Your task to perform on an android device: Open the calendar and show me this week's events Image 0: 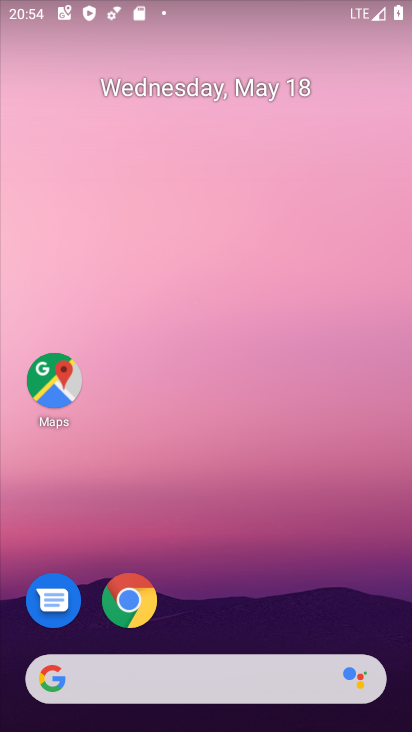
Step 0: drag from (286, 537) to (339, 19)
Your task to perform on an android device: Open the calendar and show me this week's events Image 1: 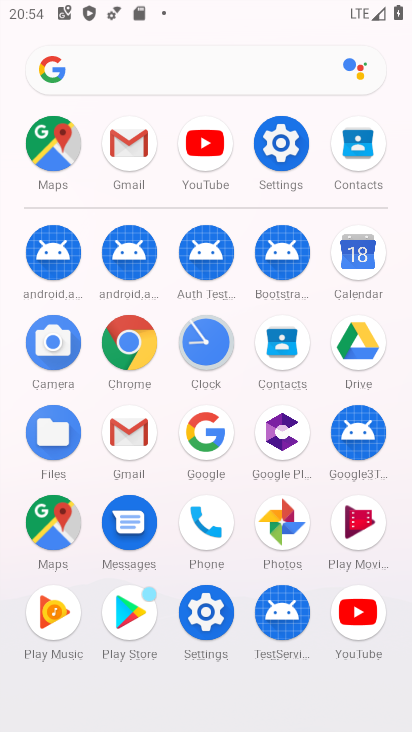
Step 1: click (343, 267)
Your task to perform on an android device: Open the calendar and show me this week's events Image 2: 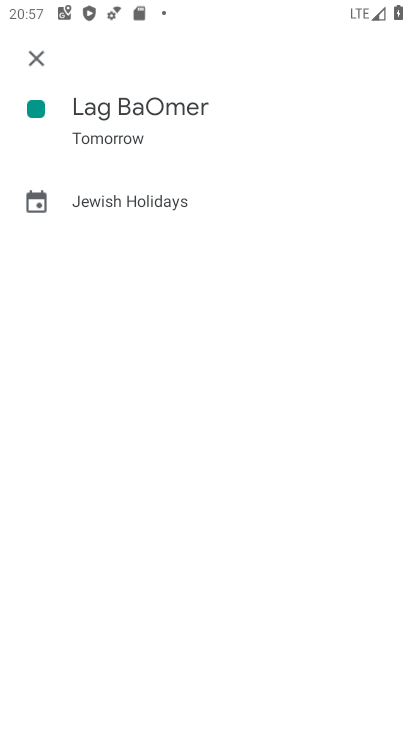
Step 2: click (36, 45)
Your task to perform on an android device: Open the calendar and show me this week's events Image 3: 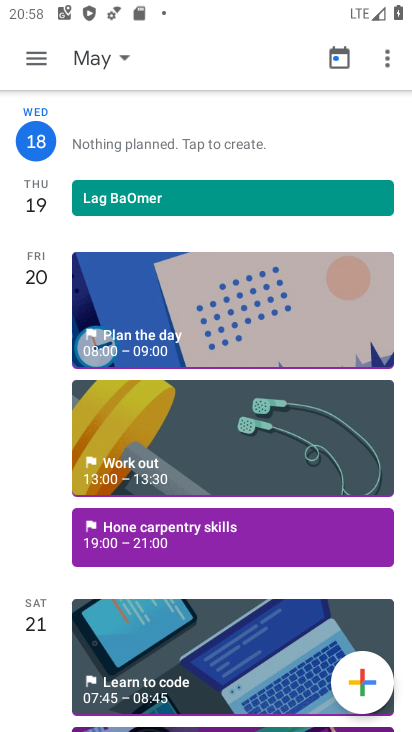
Step 3: drag from (180, 321) to (180, 587)
Your task to perform on an android device: Open the calendar and show me this week's events Image 4: 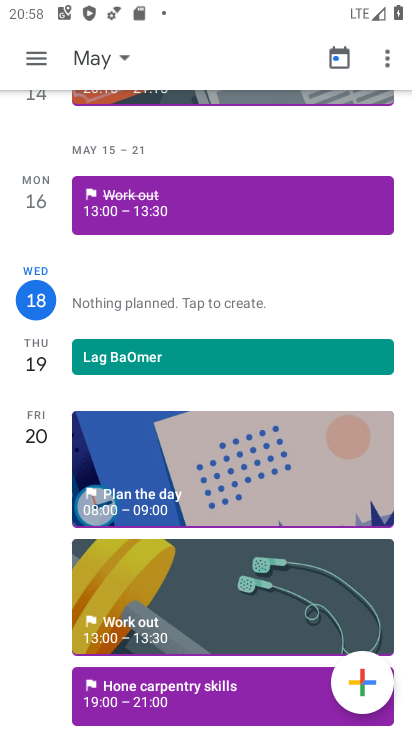
Step 4: click (90, 350)
Your task to perform on an android device: Open the calendar and show me this week's events Image 5: 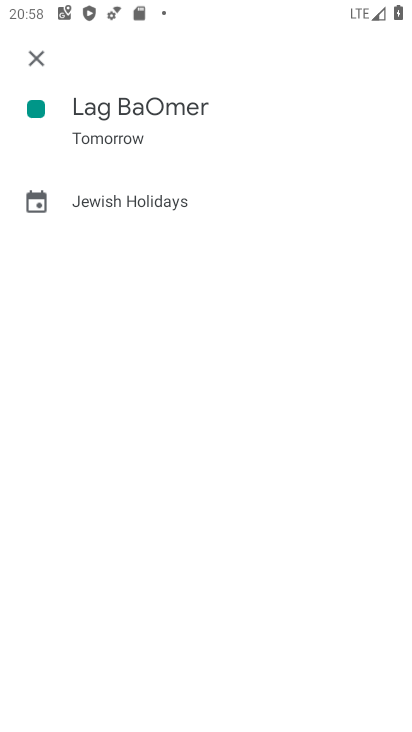
Step 5: task complete